Your task to perform on an android device: show emergency info Image 0: 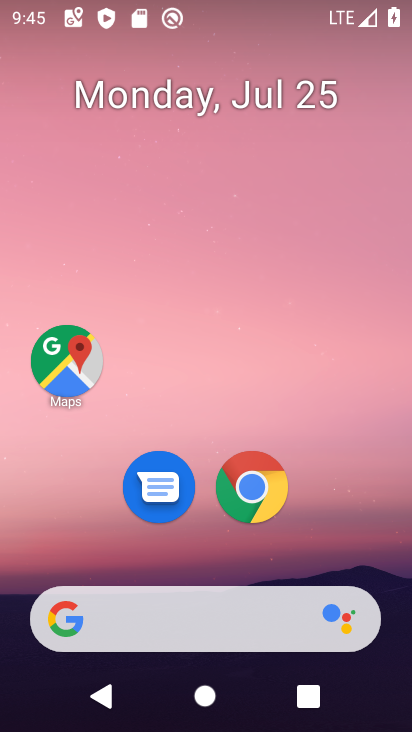
Step 0: drag from (201, 561) to (218, 6)
Your task to perform on an android device: show emergency info Image 1: 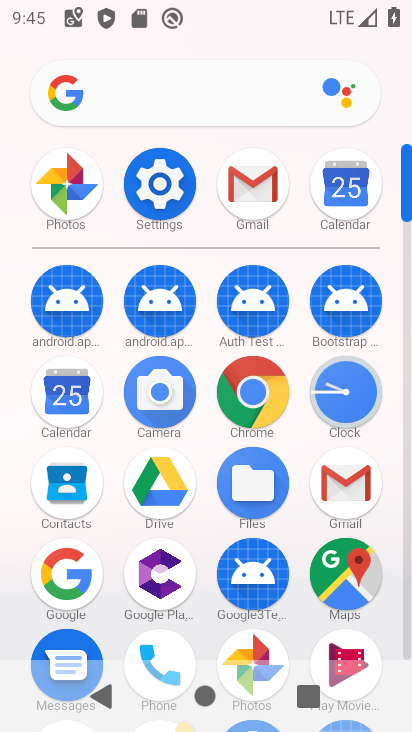
Step 1: click (174, 170)
Your task to perform on an android device: show emergency info Image 2: 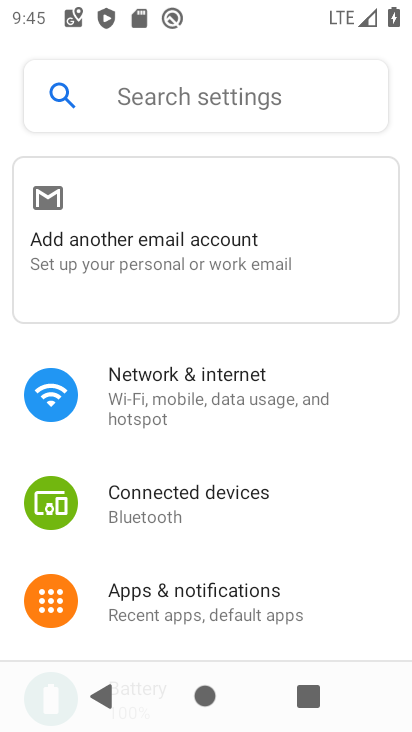
Step 2: drag from (176, 647) to (193, 5)
Your task to perform on an android device: show emergency info Image 3: 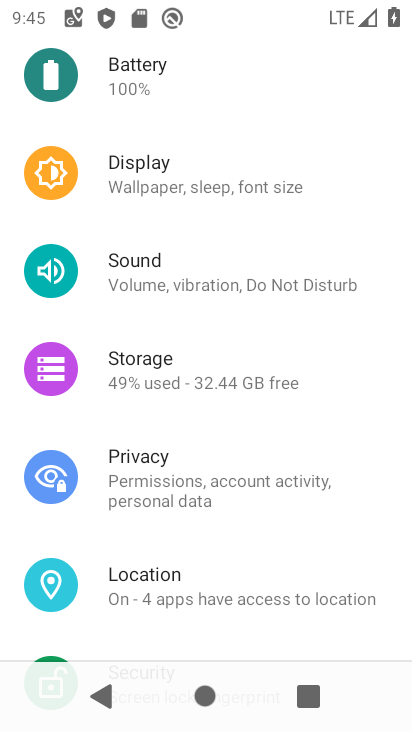
Step 3: drag from (166, 594) to (224, 2)
Your task to perform on an android device: show emergency info Image 4: 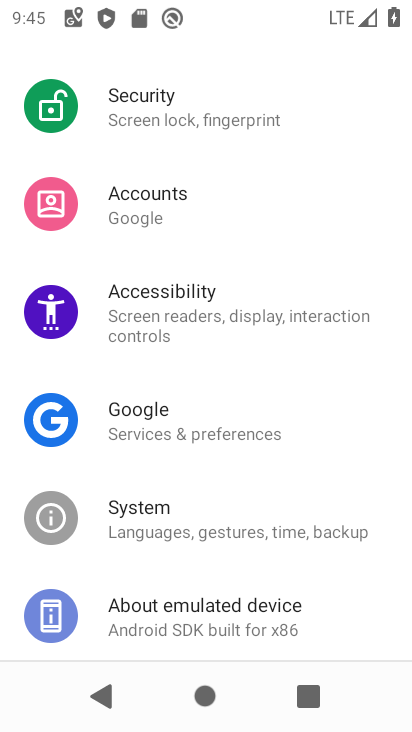
Step 4: drag from (149, 601) to (195, 73)
Your task to perform on an android device: show emergency info Image 5: 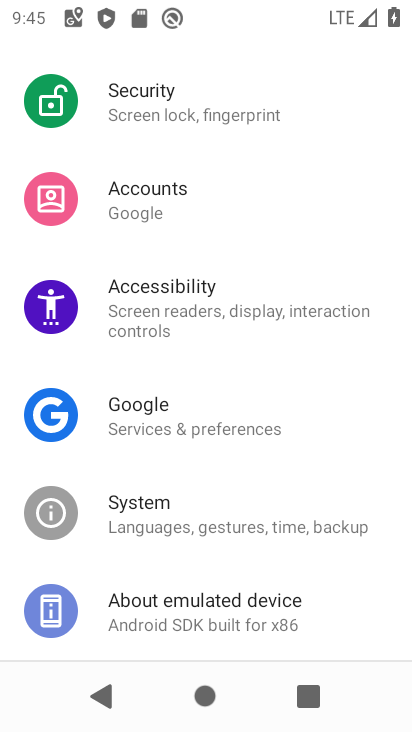
Step 5: click (140, 603)
Your task to perform on an android device: show emergency info Image 6: 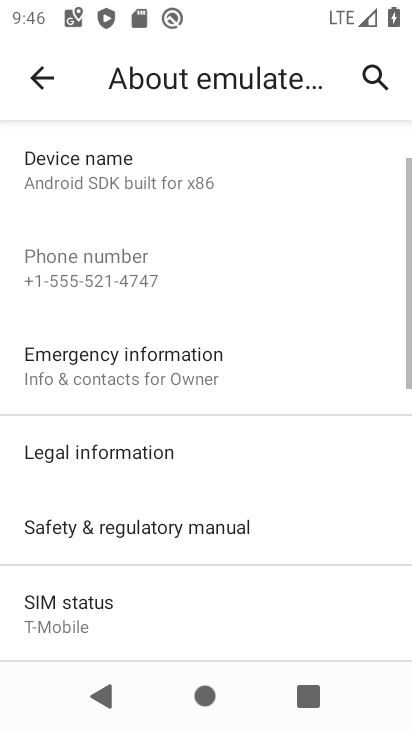
Step 6: click (144, 360)
Your task to perform on an android device: show emergency info Image 7: 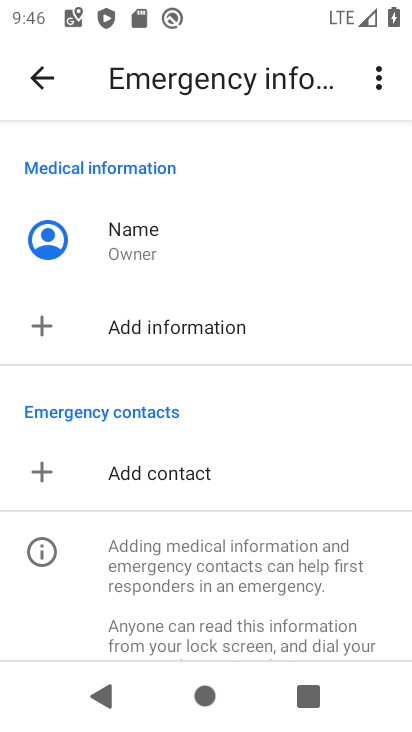
Step 7: task complete